Your task to perform on an android device: Search for the new Apple Watch on Best Buy Image 0: 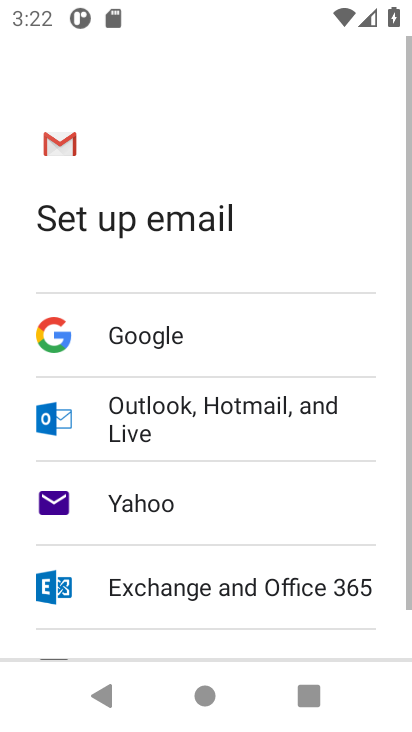
Step 0: press back button
Your task to perform on an android device: Search for the new Apple Watch on Best Buy Image 1: 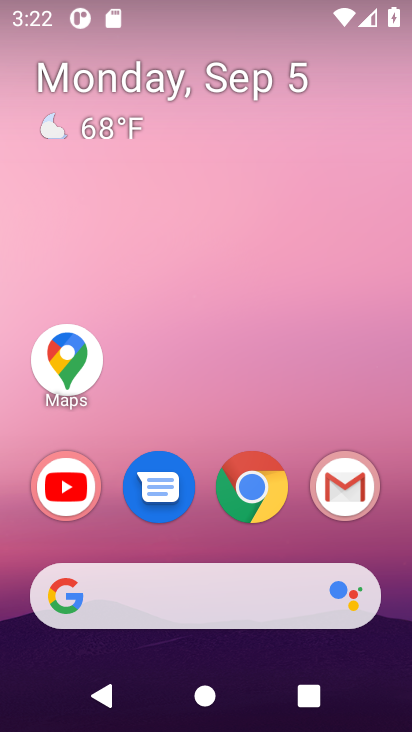
Step 1: click (244, 504)
Your task to perform on an android device: Search for the new Apple Watch on Best Buy Image 2: 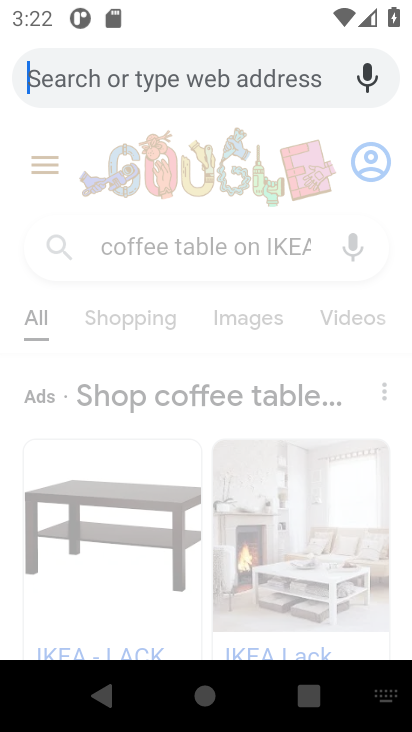
Step 2: type " new Apple Watch on Best Buy"
Your task to perform on an android device: Search for the new Apple Watch on Best Buy Image 3: 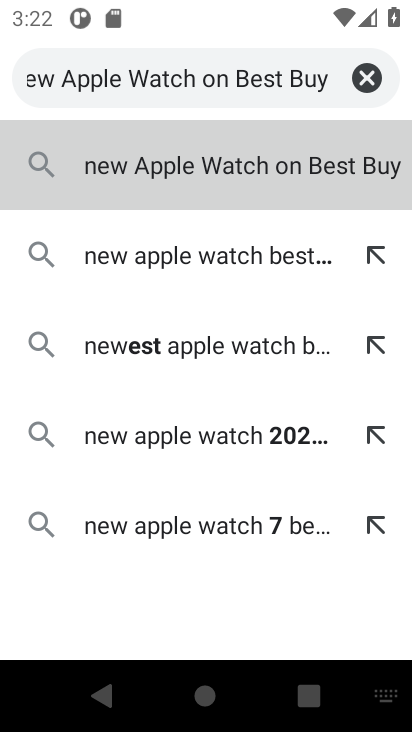
Step 3: click (229, 162)
Your task to perform on an android device: Search for the new Apple Watch on Best Buy Image 4: 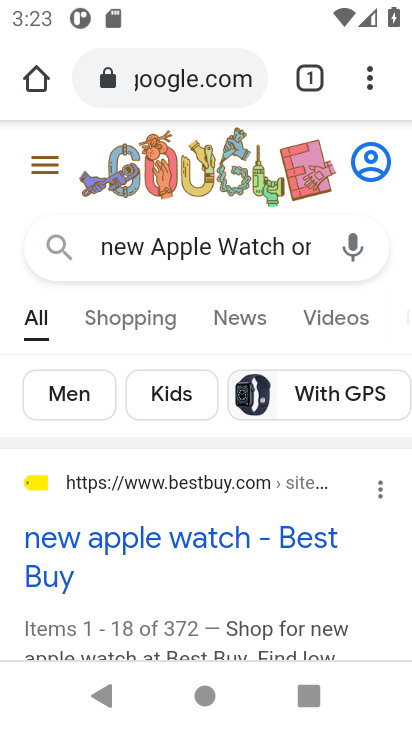
Step 4: task complete